Your task to perform on an android device: Show the shopping cart on newegg.com. Search for "lg ultragear" on newegg.com, select the first entry, and add it to the cart. Image 0: 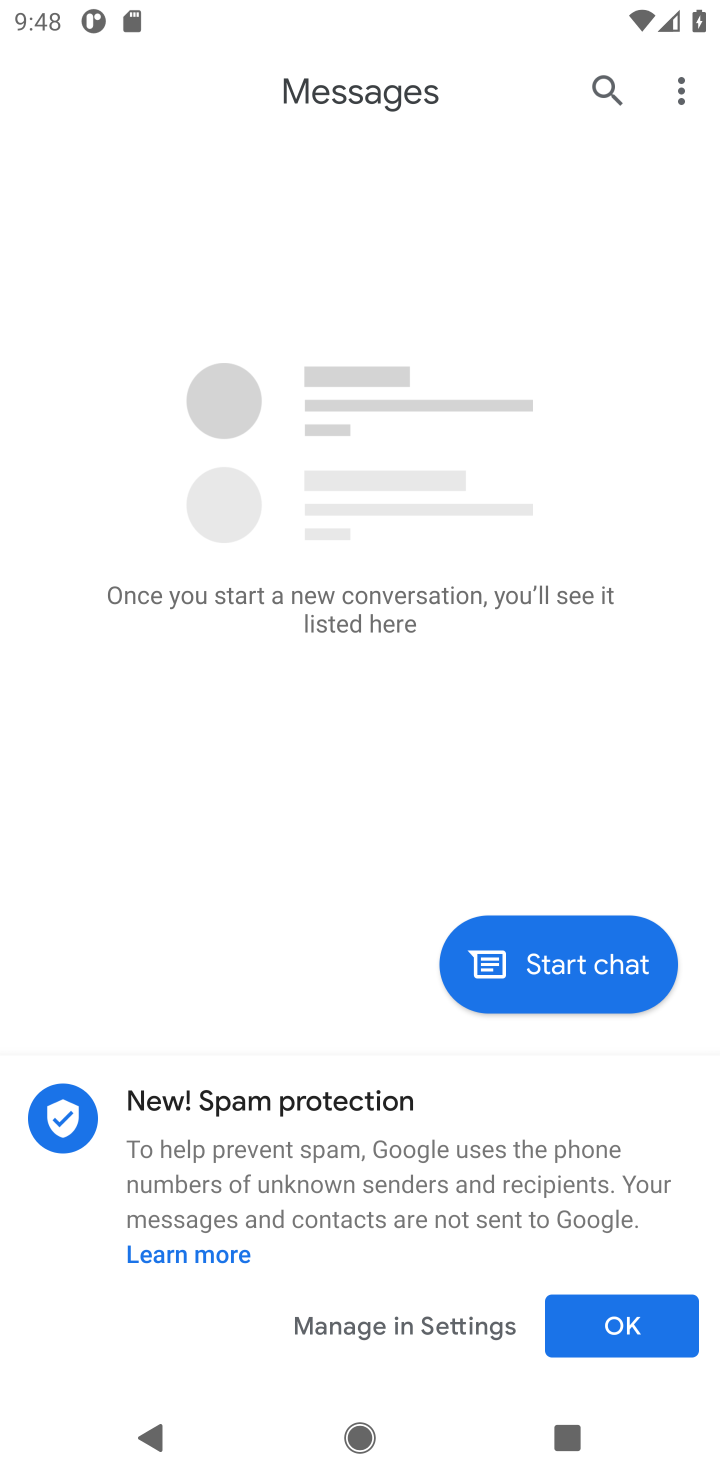
Step 0: press home button
Your task to perform on an android device: Show the shopping cart on newegg.com. Search for "lg ultragear" on newegg.com, select the first entry, and add it to the cart. Image 1: 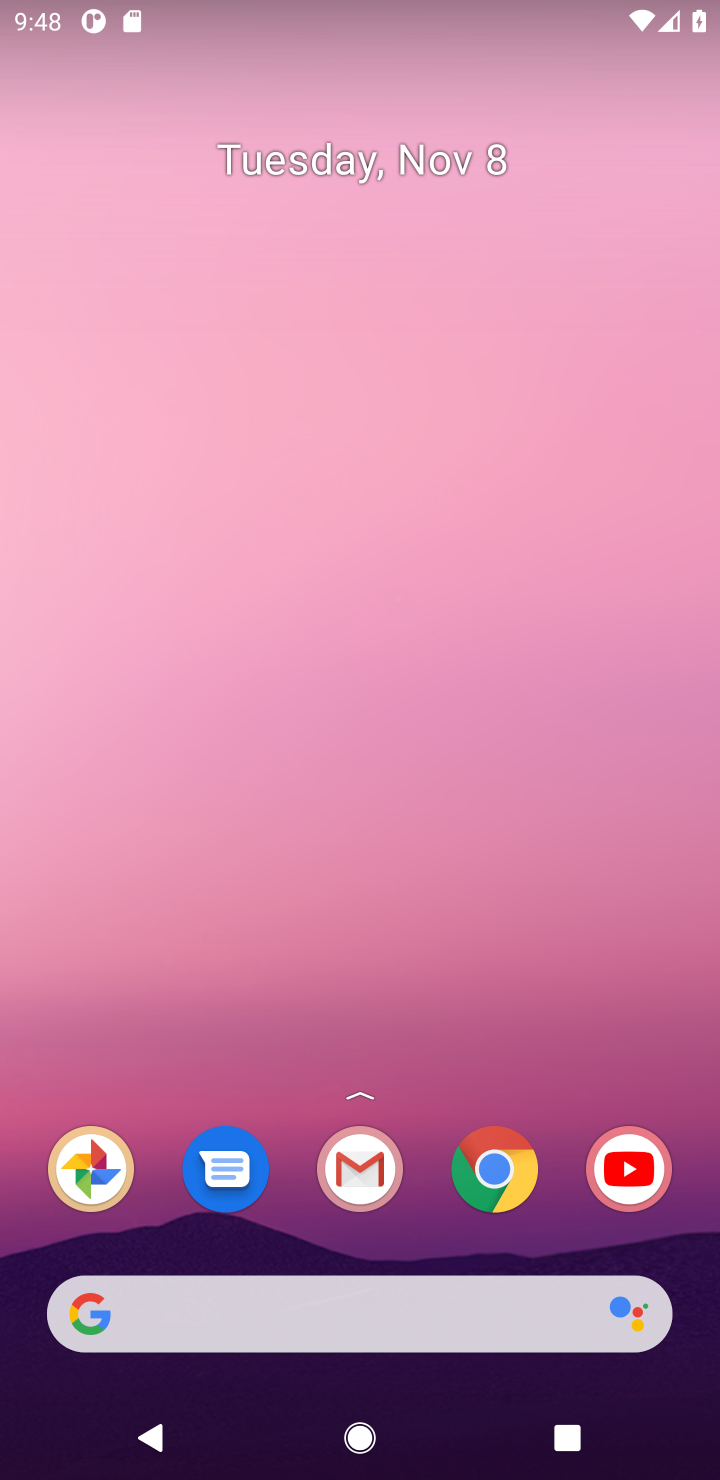
Step 1: click (515, 1160)
Your task to perform on an android device: Show the shopping cart on newegg.com. Search for "lg ultragear" on newegg.com, select the first entry, and add it to the cart. Image 2: 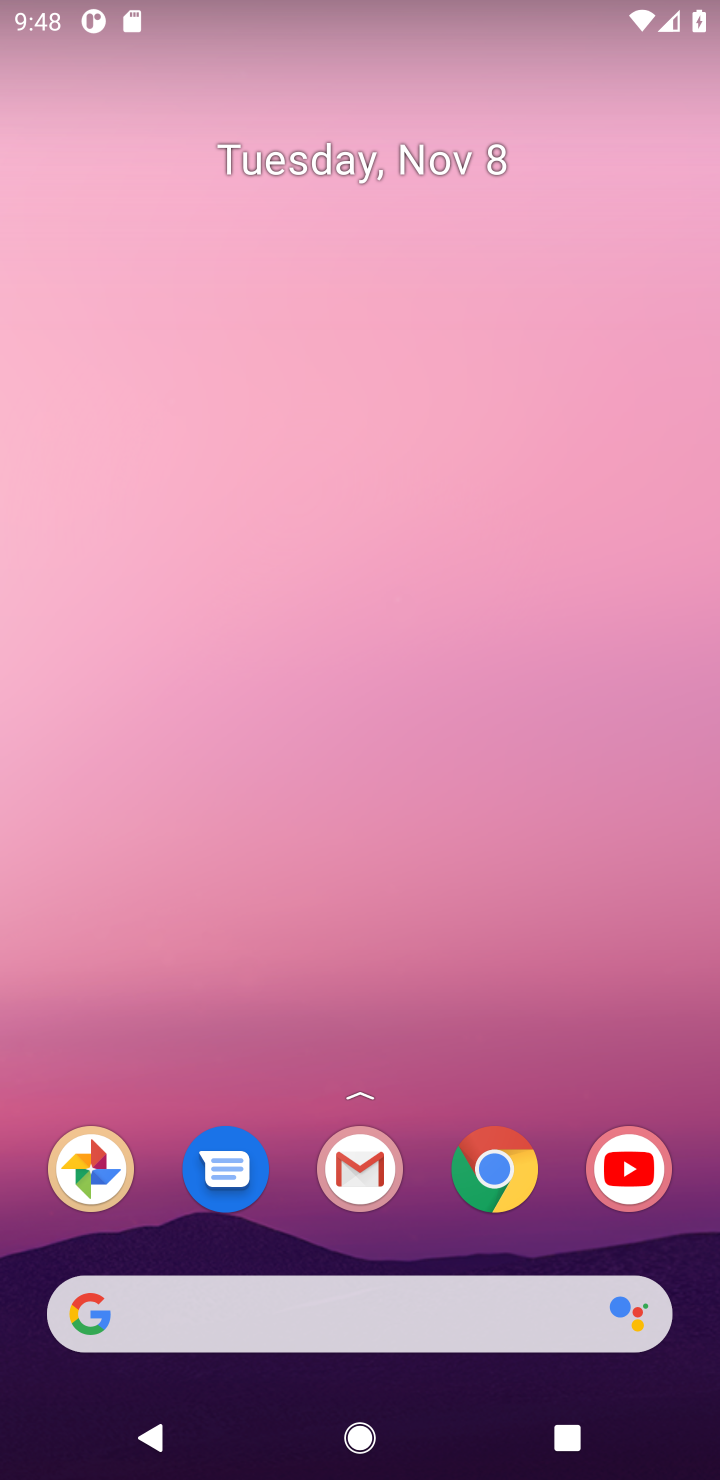
Step 2: click (515, 1160)
Your task to perform on an android device: Show the shopping cart on newegg.com. Search for "lg ultragear" on newegg.com, select the first entry, and add it to the cart. Image 3: 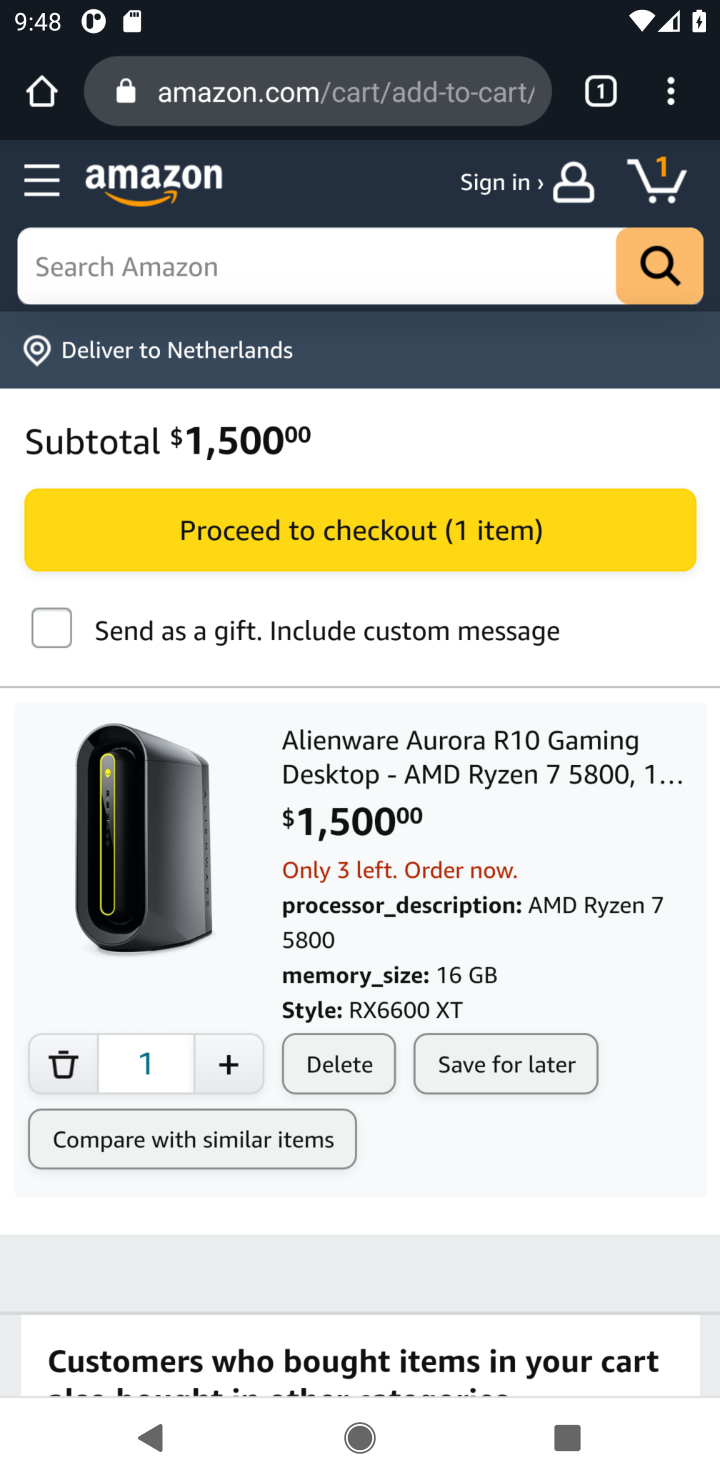
Step 3: click (515, 1160)
Your task to perform on an android device: Show the shopping cart on newegg.com. Search for "lg ultragear" on newegg.com, select the first entry, and add it to the cart. Image 4: 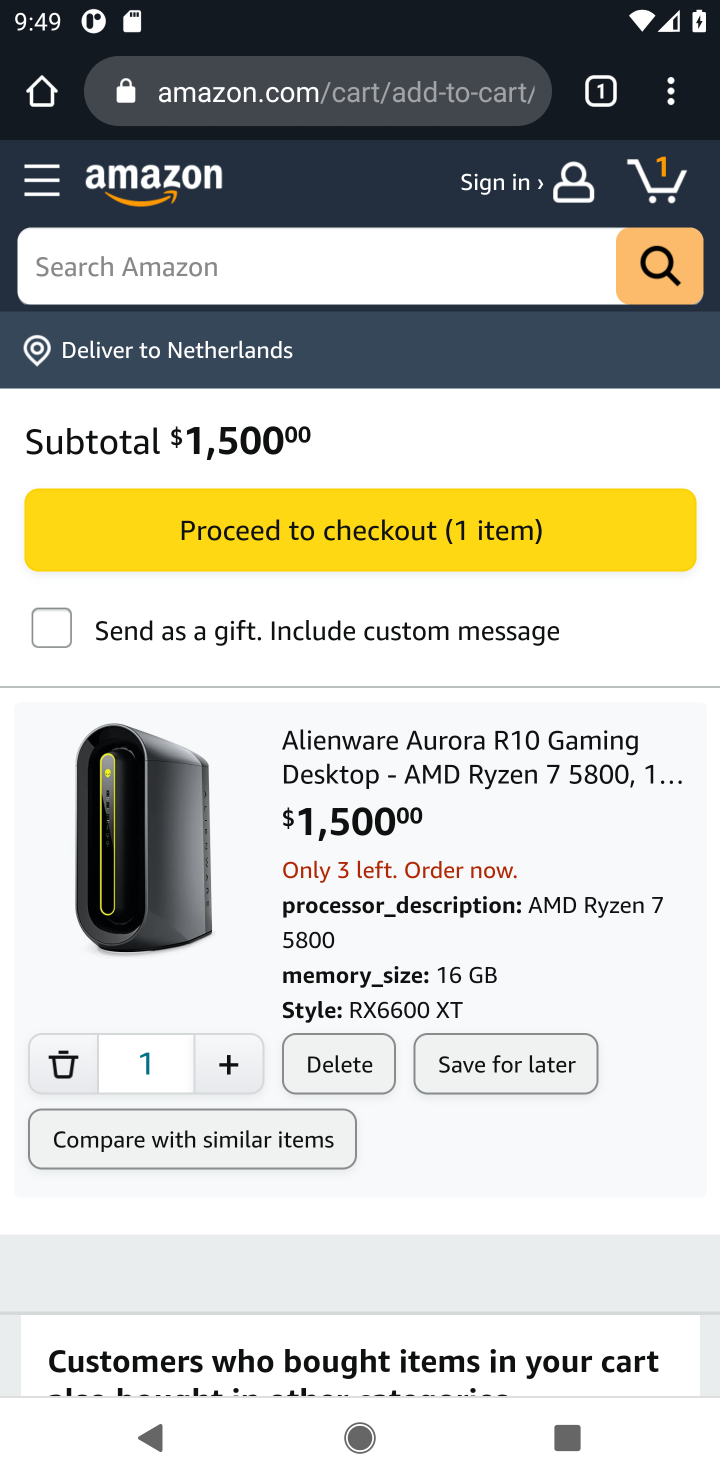
Step 4: click (286, 273)
Your task to perform on an android device: Show the shopping cart on newegg.com. Search for "lg ultragear" on newegg.com, select the first entry, and add it to the cart. Image 5: 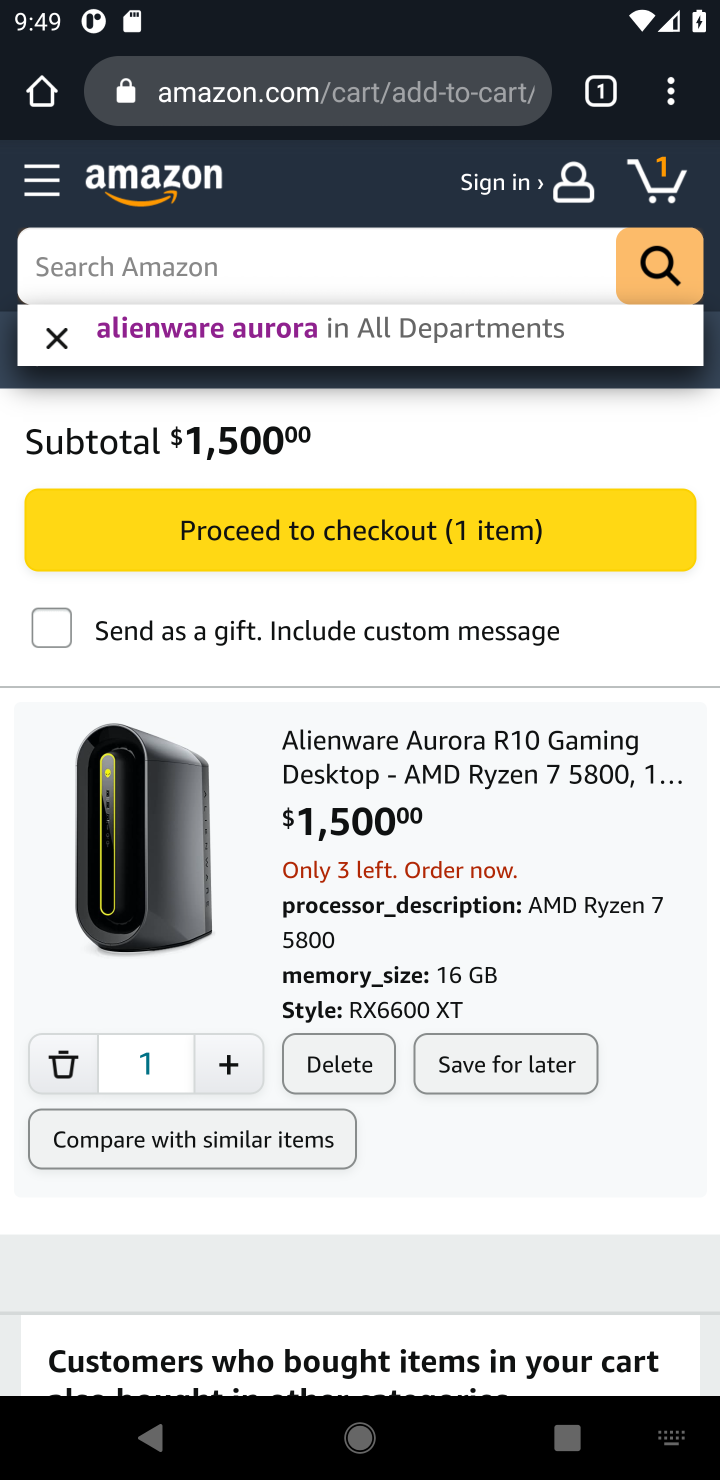
Step 5: click (397, 102)
Your task to perform on an android device: Show the shopping cart on newegg.com. Search for "lg ultragear" on newegg.com, select the first entry, and add it to the cart. Image 6: 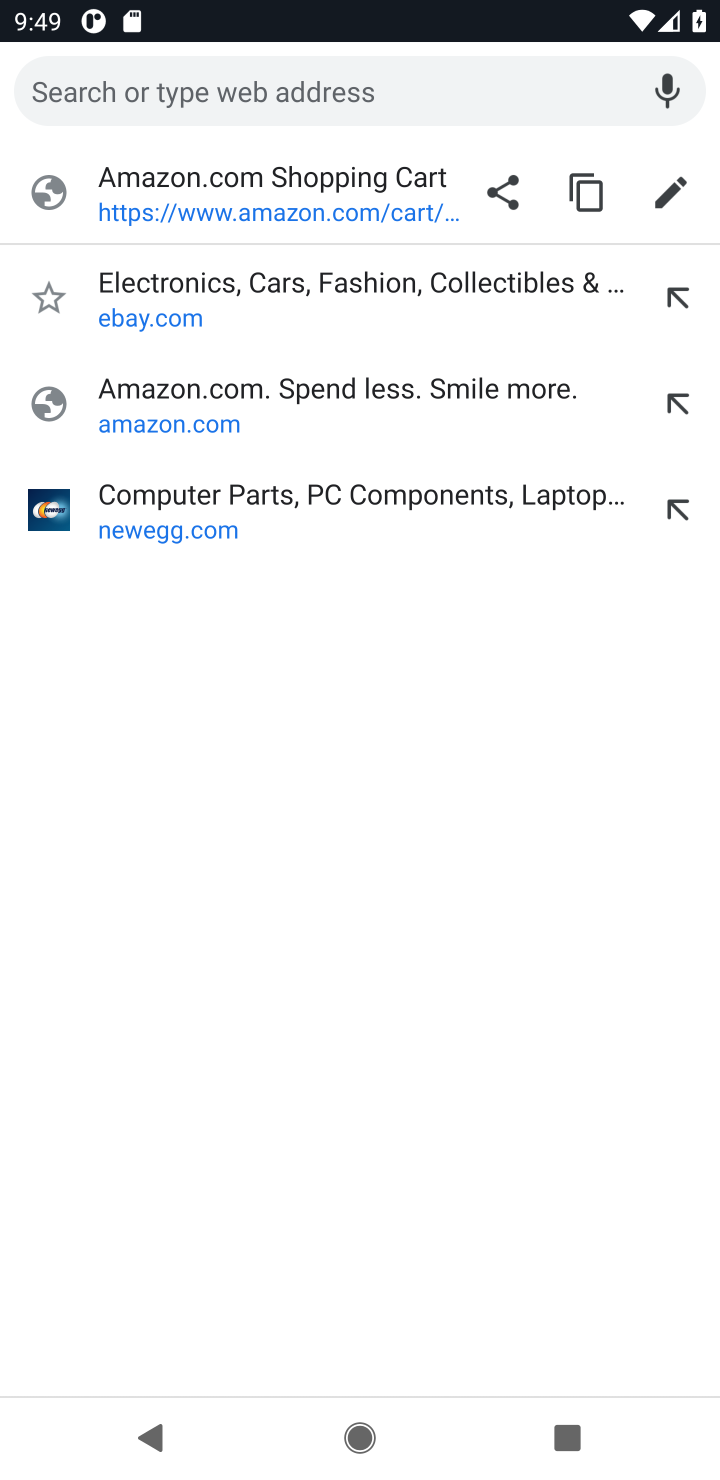
Step 6: type "newegg.com"
Your task to perform on an android device: Show the shopping cart on newegg.com. Search for "lg ultragear" on newegg.com, select the first entry, and add it to the cart. Image 7: 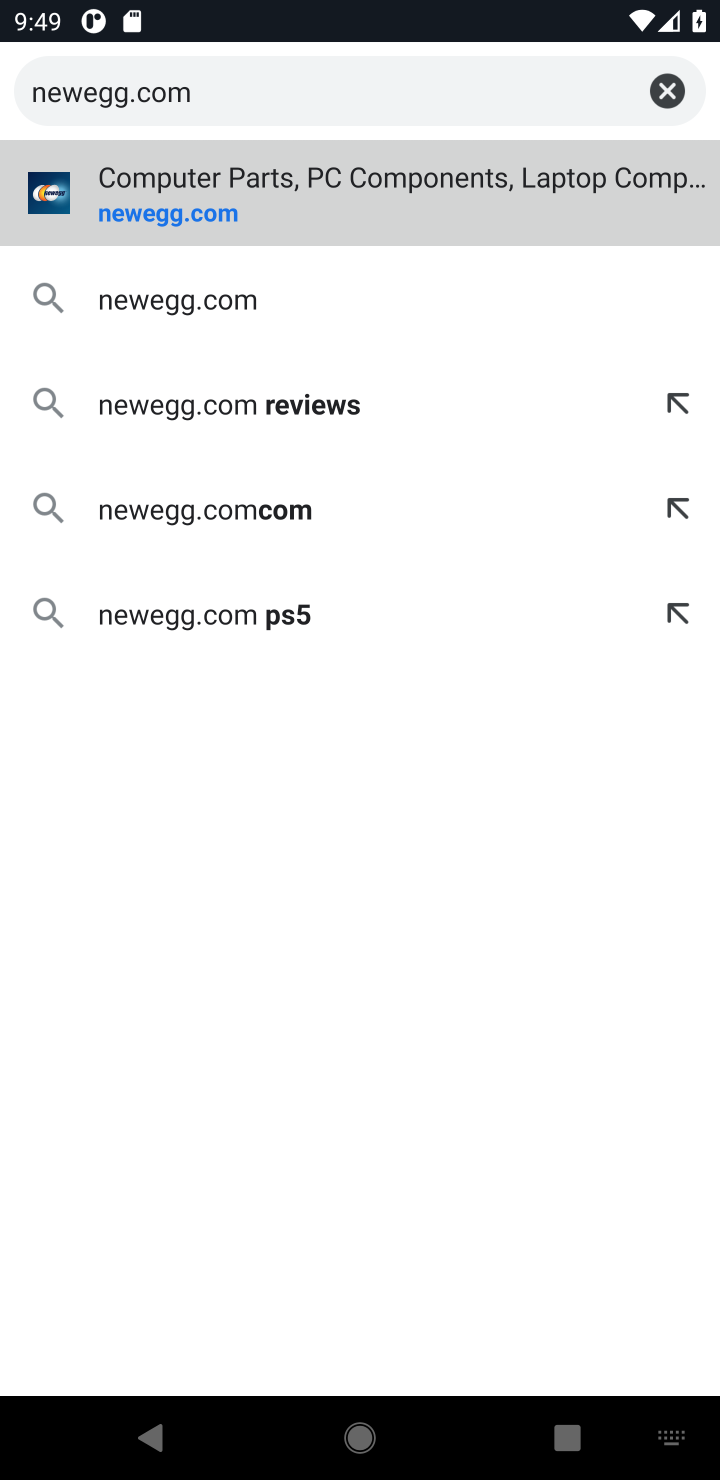
Step 7: press enter
Your task to perform on an android device: Show the shopping cart on newegg.com. Search for "lg ultragear" on newegg.com, select the first entry, and add it to the cart. Image 8: 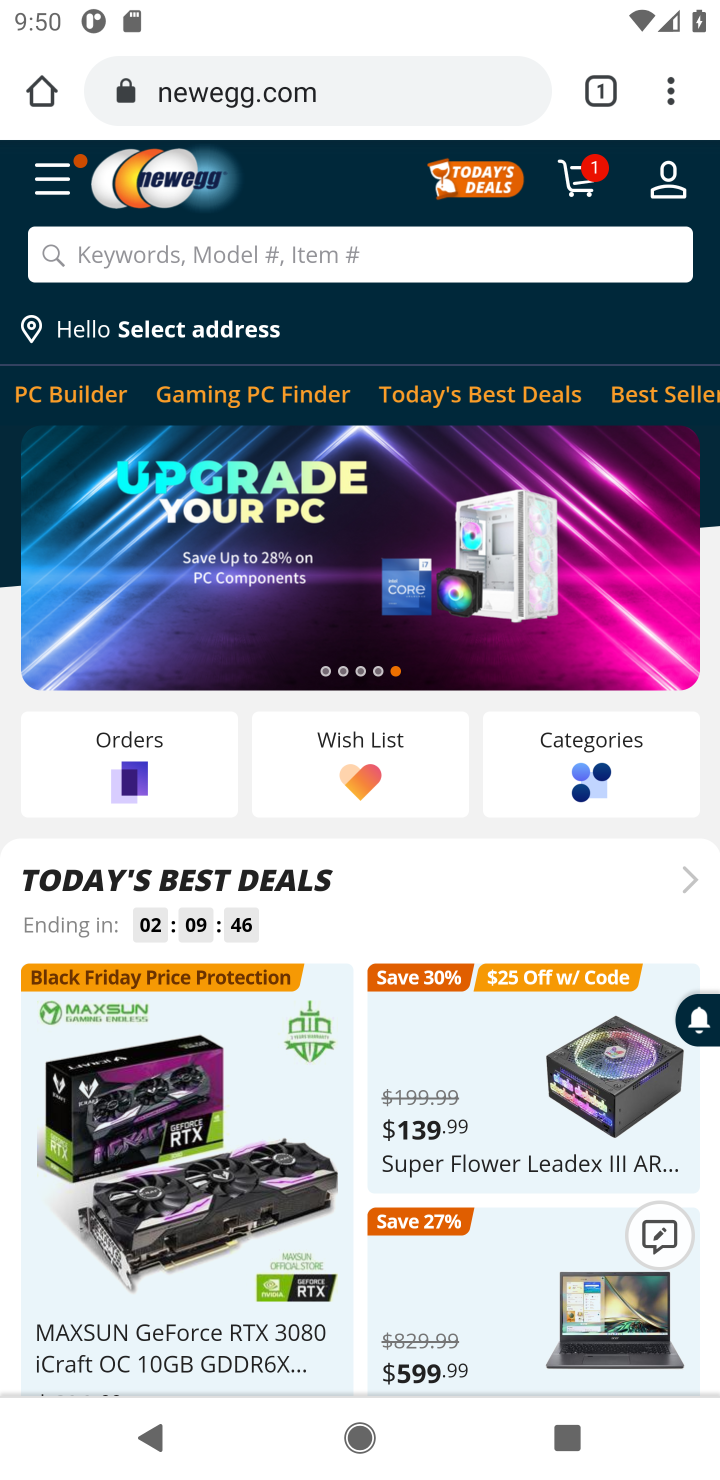
Step 8: click (309, 242)
Your task to perform on an android device: Show the shopping cart on newegg.com. Search for "lg ultragear" on newegg.com, select the first entry, and add it to the cart. Image 9: 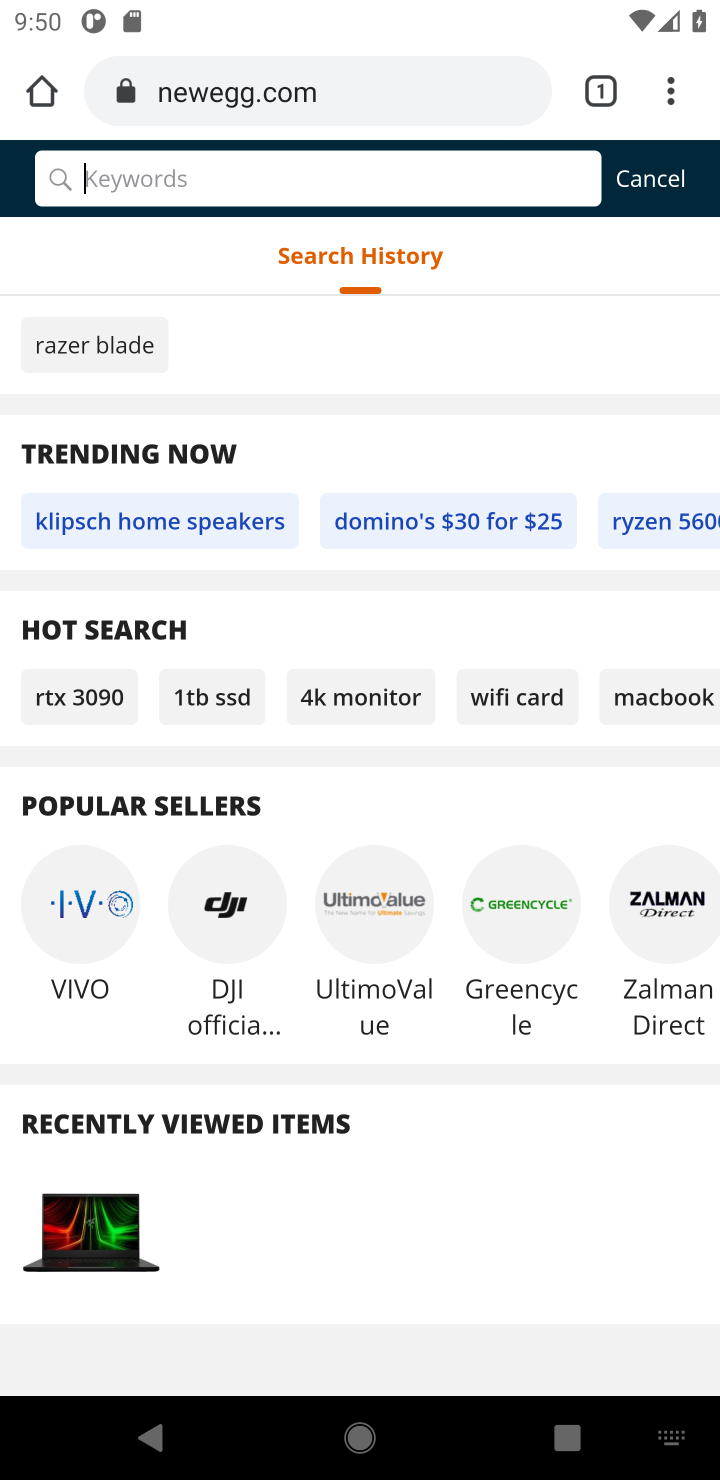
Step 9: type "lg ultragear"
Your task to perform on an android device: Show the shopping cart on newegg.com. Search for "lg ultragear" on newegg.com, select the first entry, and add it to the cart. Image 10: 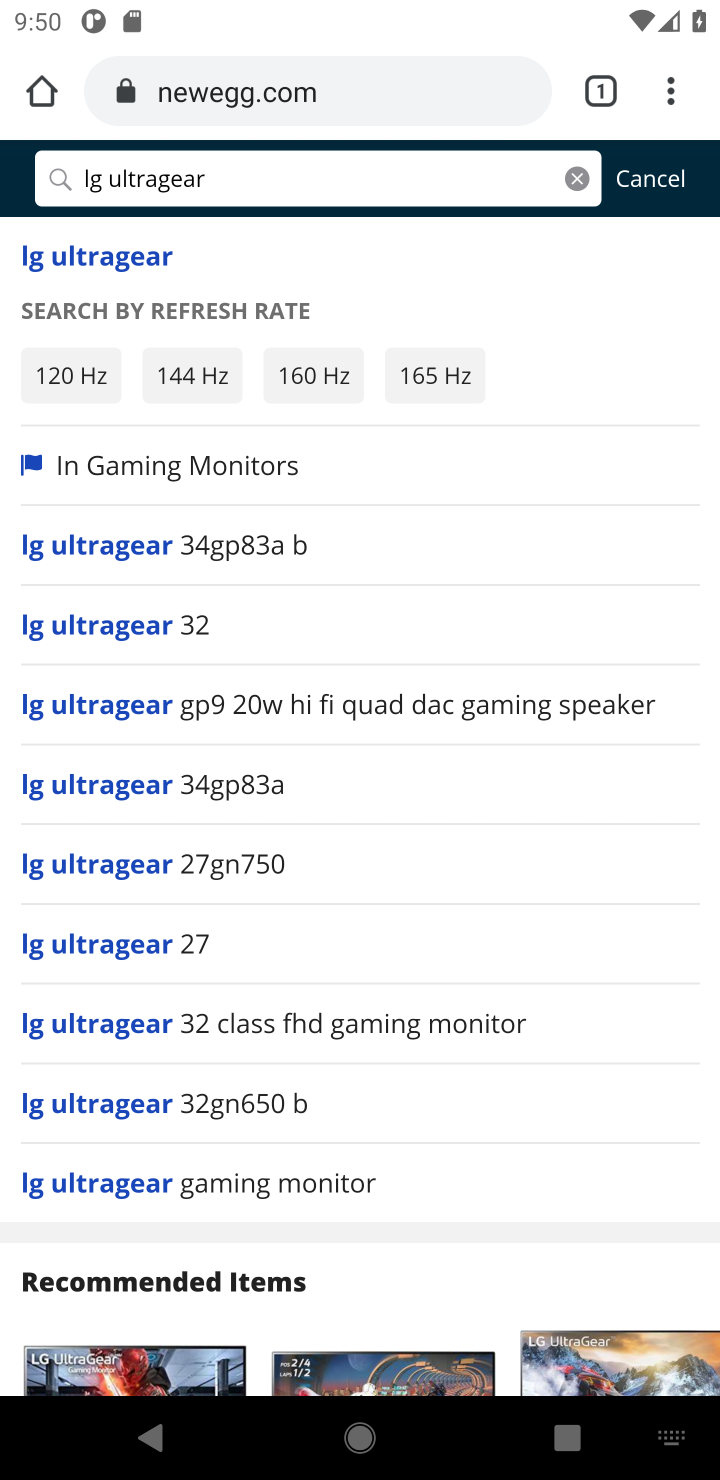
Step 10: click (135, 259)
Your task to perform on an android device: Show the shopping cart on newegg.com. Search for "lg ultragear" on newegg.com, select the first entry, and add it to the cart. Image 11: 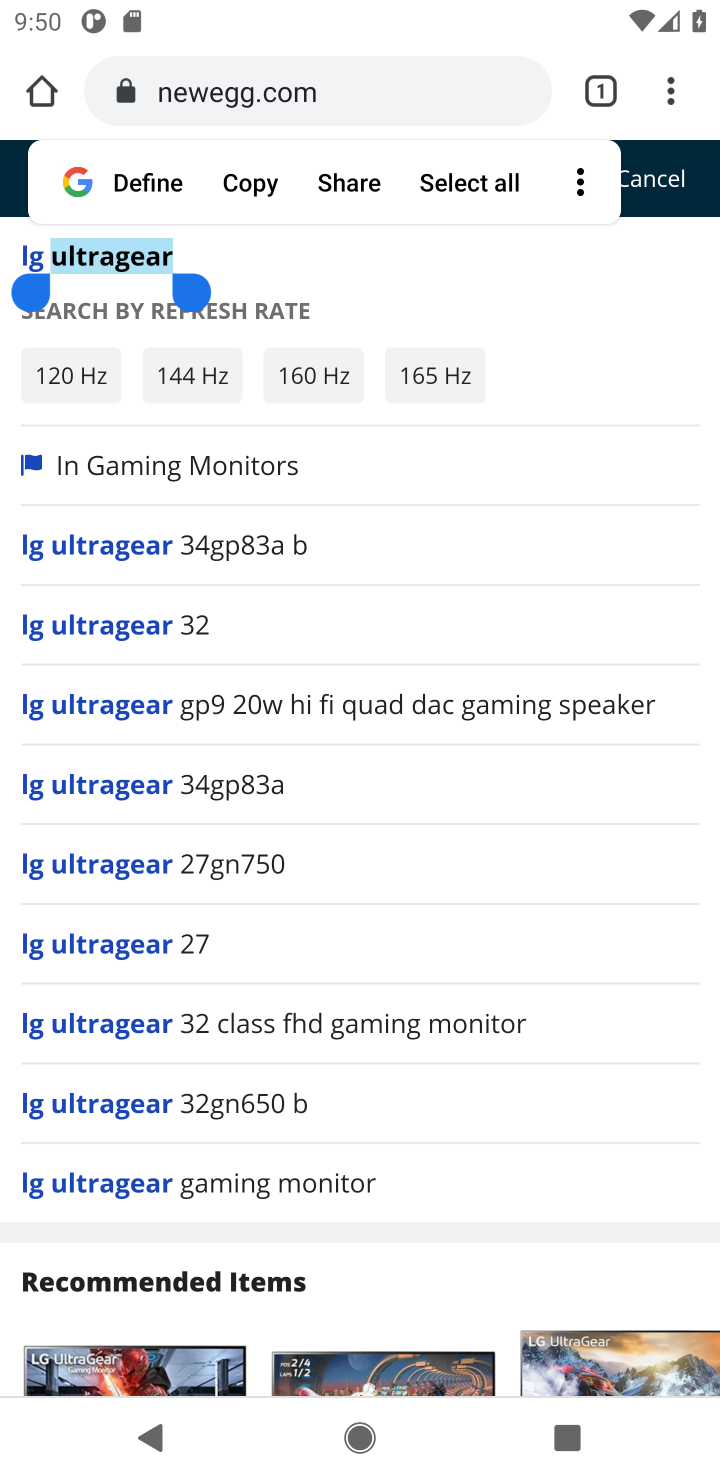
Step 11: click (135, 259)
Your task to perform on an android device: Show the shopping cart on newegg.com. Search for "lg ultragear" on newegg.com, select the first entry, and add it to the cart. Image 12: 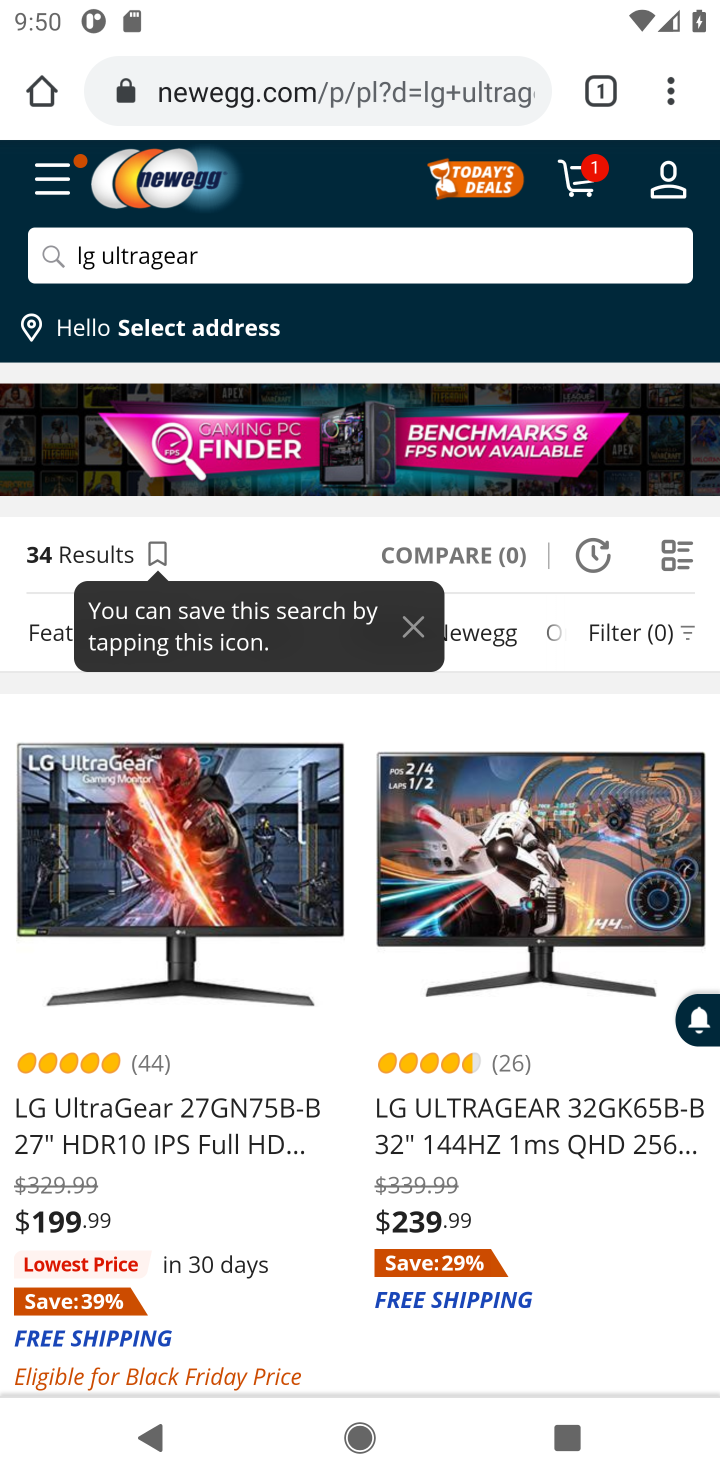
Step 12: click (212, 864)
Your task to perform on an android device: Show the shopping cart on newegg.com. Search for "lg ultragear" on newegg.com, select the first entry, and add it to the cart. Image 13: 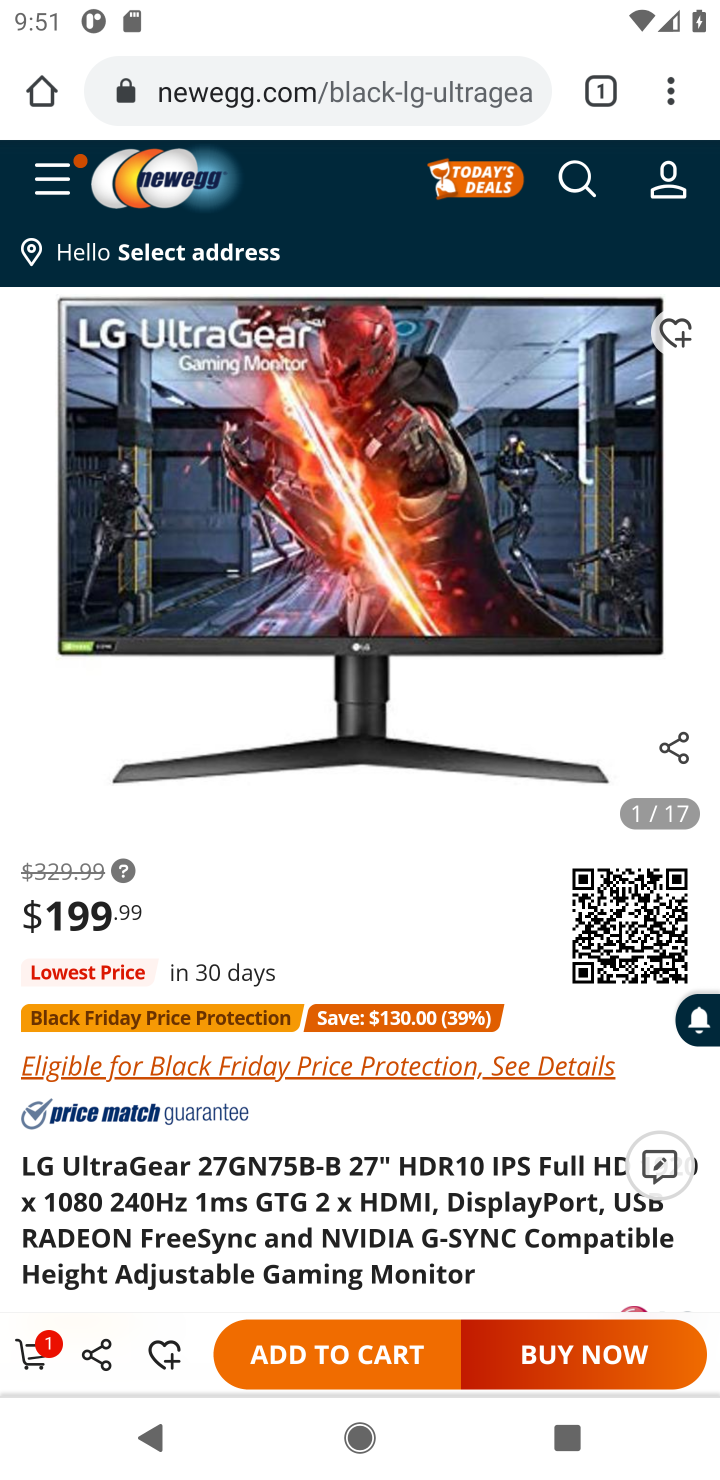
Step 13: click (325, 1351)
Your task to perform on an android device: Show the shopping cart on newegg.com. Search for "lg ultragear" on newegg.com, select the first entry, and add it to the cart. Image 14: 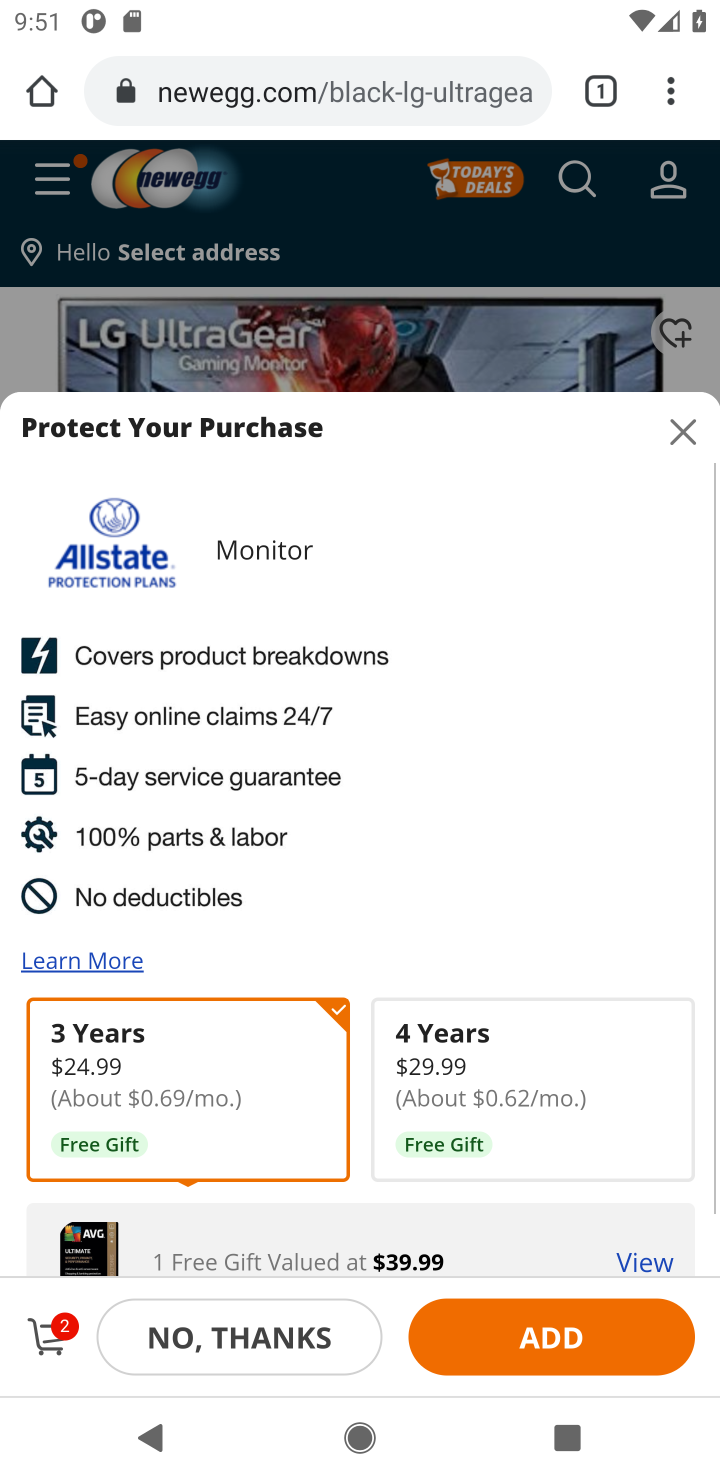
Step 14: task complete